Your task to perform on an android device: turn off priority inbox in the gmail app Image 0: 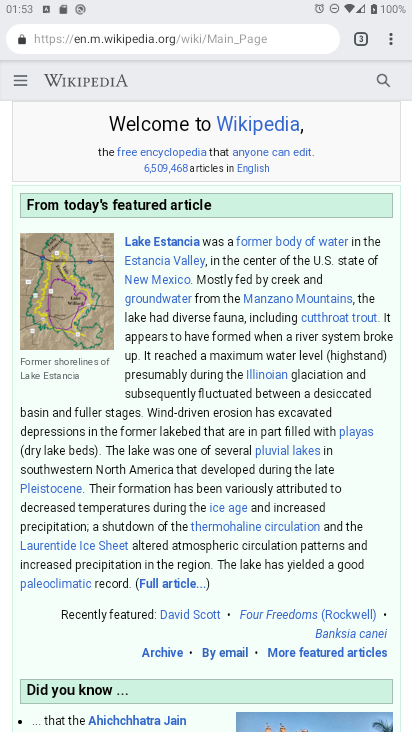
Step 0: press home button
Your task to perform on an android device: turn off priority inbox in the gmail app Image 1: 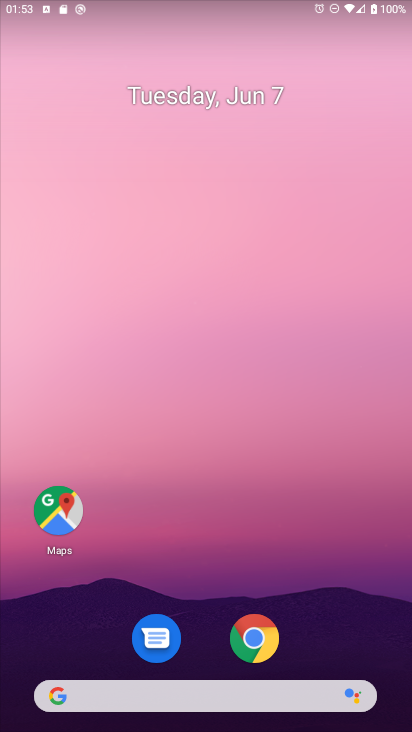
Step 1: drag from (194, 708) to (279, 70)
Your task to perform on an android device: turn off priority inbox in the gmail app Image 2: 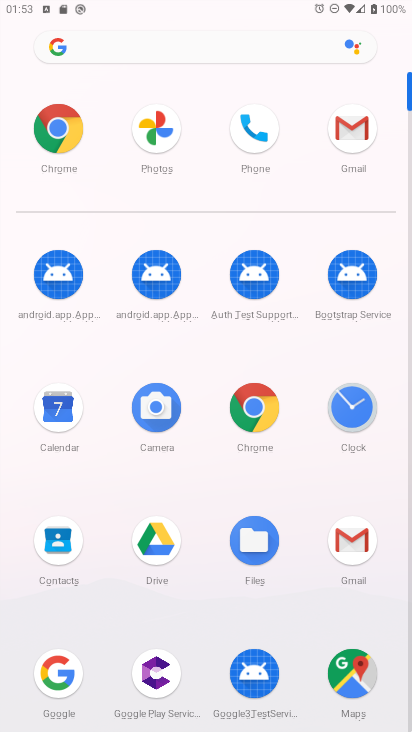
Step 2: click (365, 112)
Your task to perform on an android device: turn off priority inbox in the gmail app Image 3: 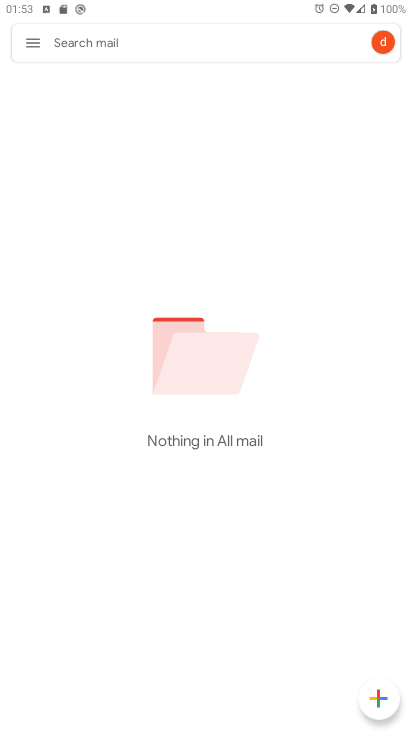
Step 3: click (30, 49)
Your task to perform on an android device: turn off priority inbox in the gmail app Image 4: 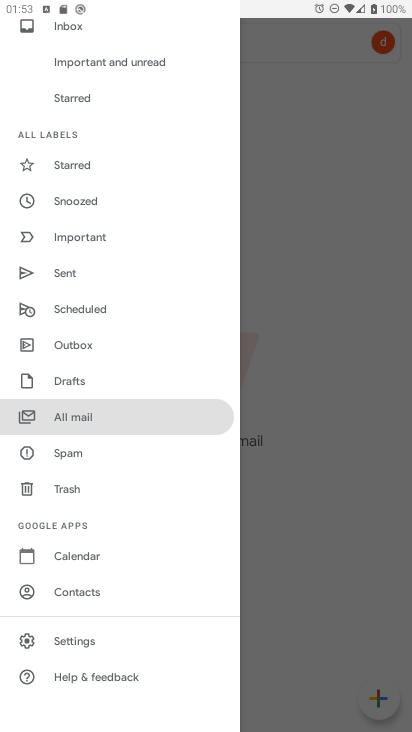
Step 4: click (96, 639)
Your task to perform on an android device: turn off priority inbox in the gmail app Image 5: 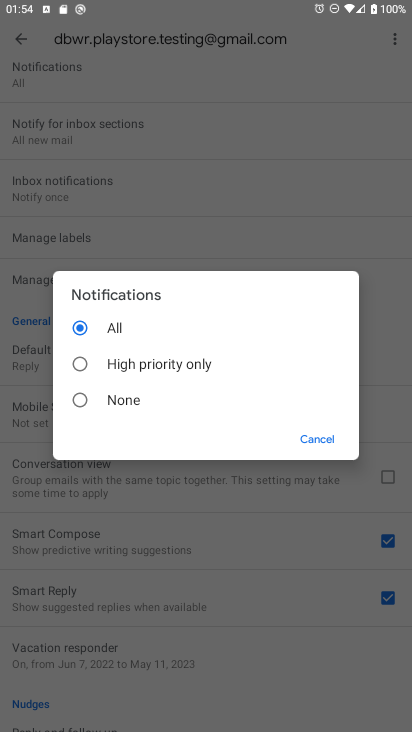
Step 5: click (318, 444)
Your task to perform on an android device: turn off priority inbox in the gmail app Image 6: 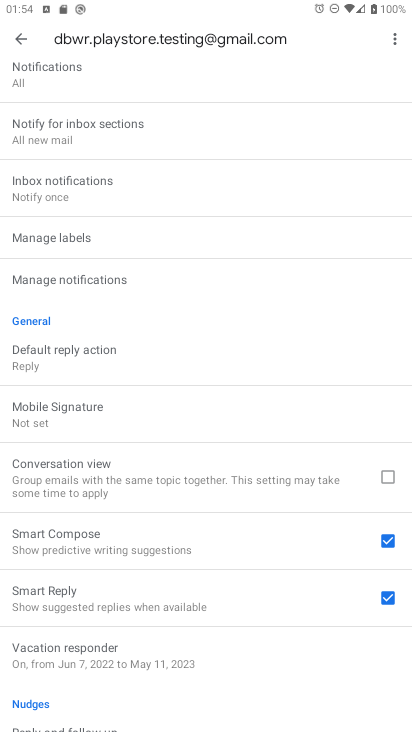
Step 6: drag from (92, 186) to (103, 390)
Your task to perform on an android device: turn off priority inbox in the gmail app Image 7: 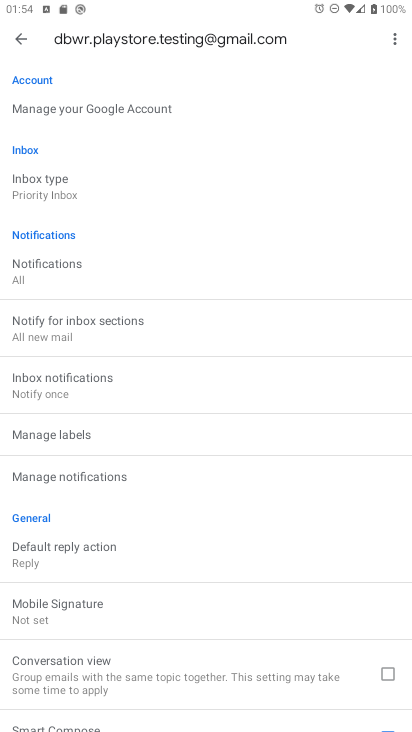
Step 7: click (96, 177)
Your task to perform on an android device: turn off priority inbox in the gmail app Image 8: 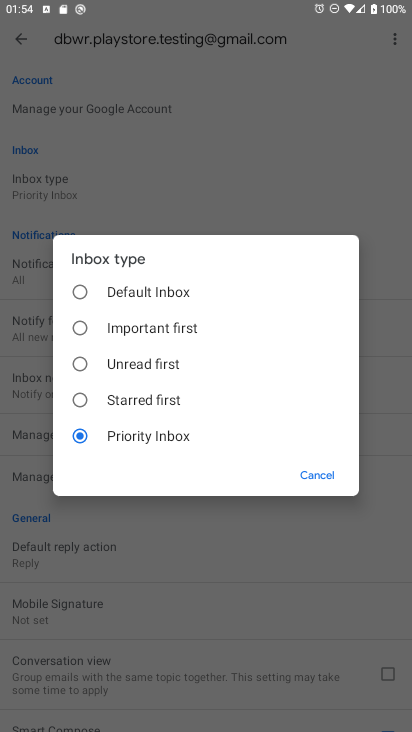
Step 8: click (134, 288)
Your task to perform on an android device: turn off priority inbox in the gmail app Image 9: 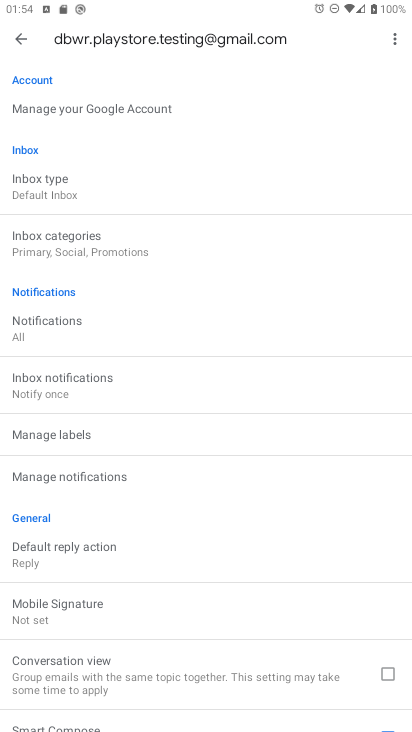
Step 9: task complete